Your task to perform on an android device: What's the weather going to be tomorrow? Image 0: 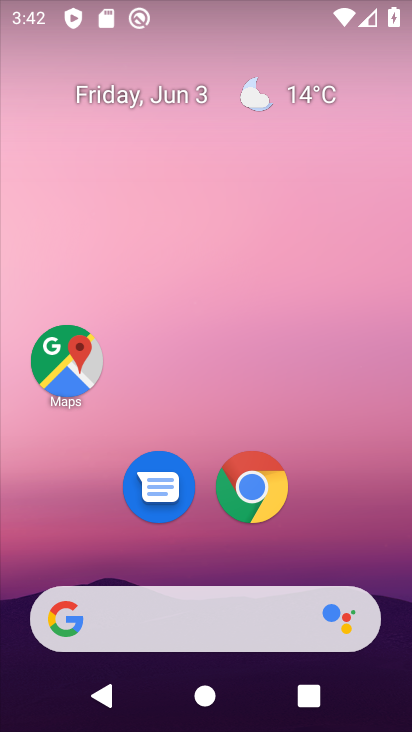
Step 0: click (259, 99)
Your task to perform on an android device: What's the weather going to be tomorrow? Image 1: 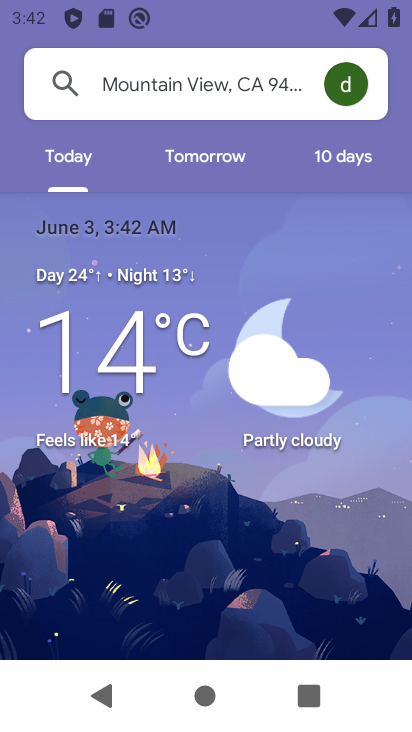
Step 1: click (213, 161)
Your task to perform on an android device: What's the weather going to be tomorrow? Image 2: 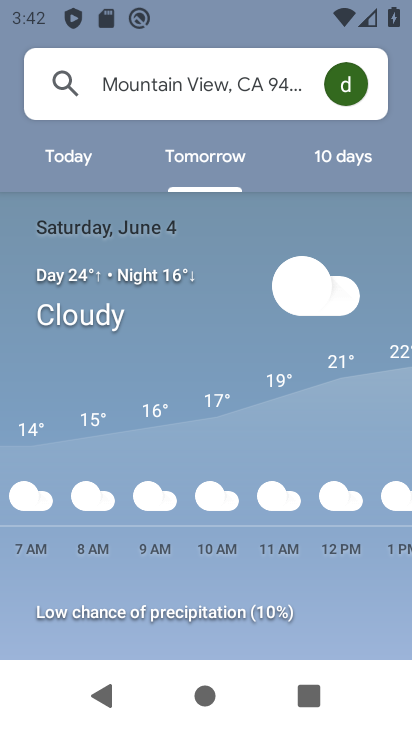
Step 2: task complete